Your task to perform on an android device: What's the weather? Image 0: 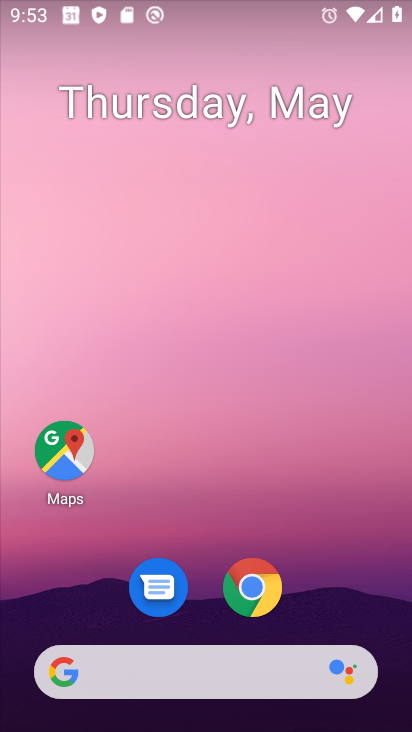
Step 0: drag from (366, 614) to (243, 51)
Your task to perform on an android device: What's the weather? Image 1: 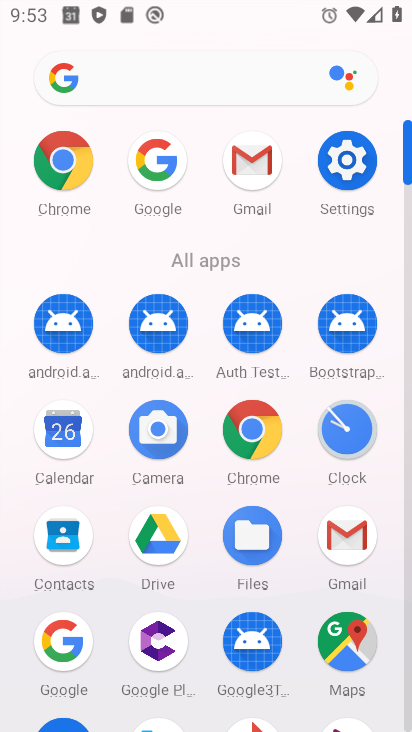
Step 1: click (45, 626)
Your task to perform on an android device: What's the weather? Image 2: 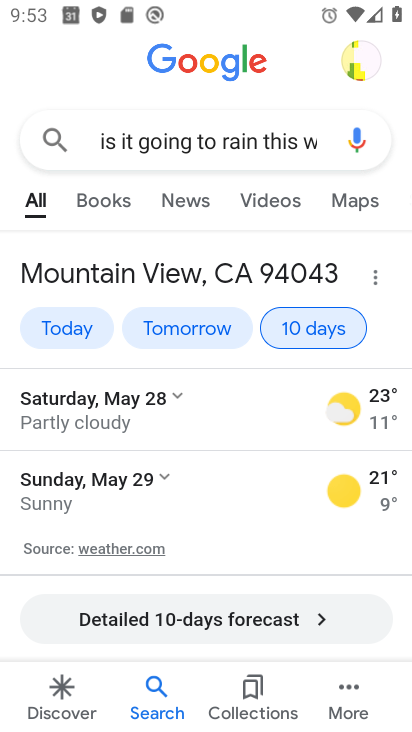
Step 2: press back button
Your task to perform on an android device: What's the weather? Image 3: 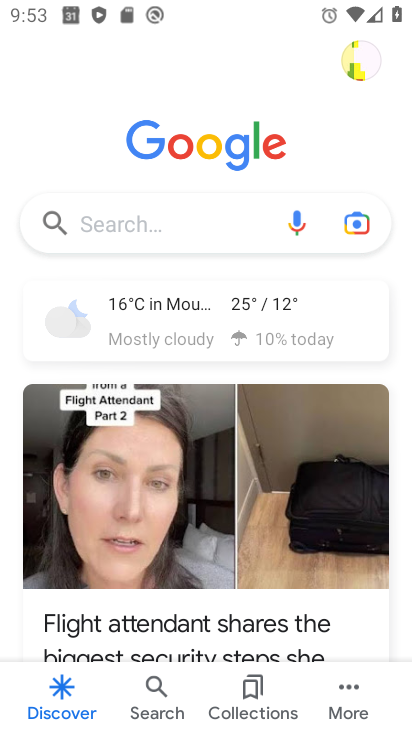
Step 3: click (158, 224)
Your task to perform on an android device: What's the weather? Image 4: 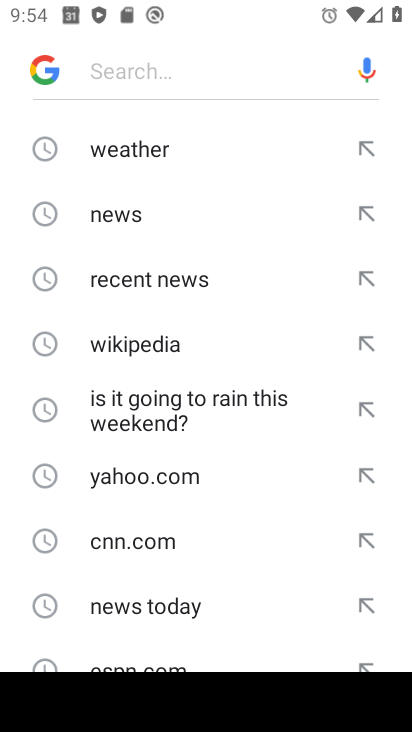
Step 4: click (214, 156)
Your task to perform on an android device: What's the weather? Image 5: 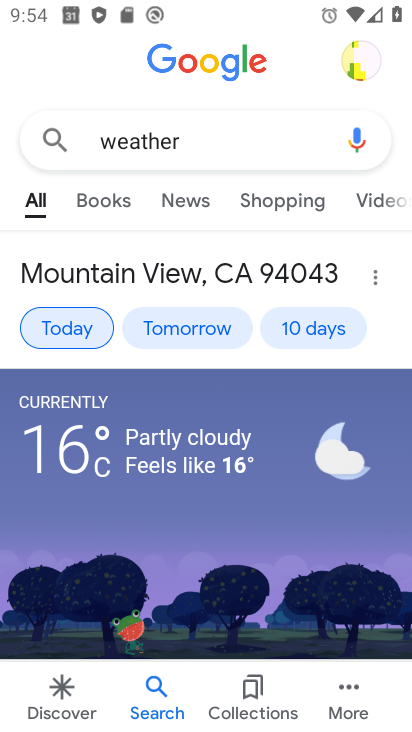
Step 5: task complete